Your task to perform on an android device: Show the shopping cart on walmart. Add dell xps to the cart on walmart, then select checkout. Image 0: 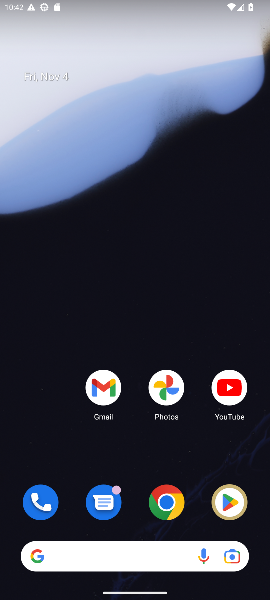
Step 0: drag from (149, 412) to (192, 32)
Your task to perform on an android device: Show the shopping cart on walmart. Add dell xps to the cart on walmart, then select checkout. Image 1: 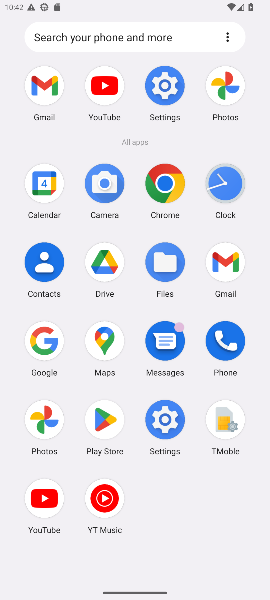
Step 1: click (163, 184)
Your task to perform on an android device: Show the shopping cart on walmart. Add dell xps to the cart on walmart, then select checkout. Image 2: 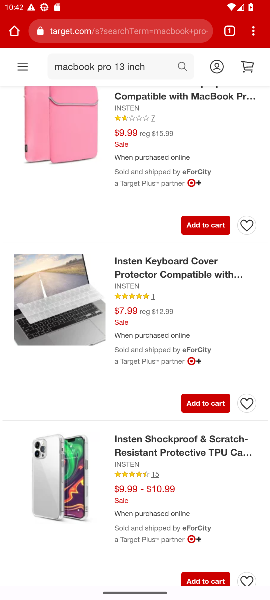
Step 2: click (147, 29)
Your task to perform on an android device: Show the shopping cart on walmart. Add dell xps to the cart on walmart, then select checkout. Image 3: 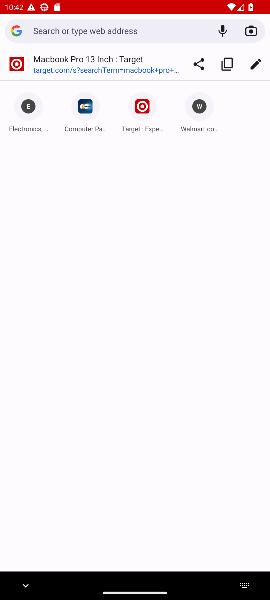
Step 3: type "walmart.com"
Your task to perform on an android device: Show the shopping cart on walmart. Add dell xps to the cart on walmart, then select checkout. Image 4: 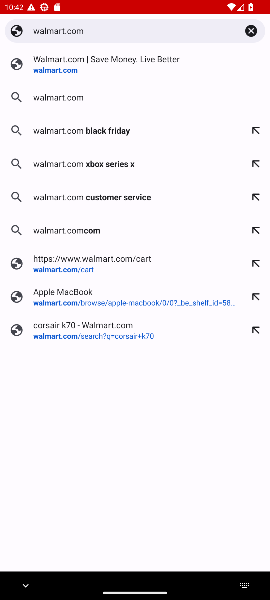
Step 4: press enter
Your task to perform on an android device: Show the shopping cart on walmart. Add dell xps to the cart on walmart, then select checkout. Image 5: 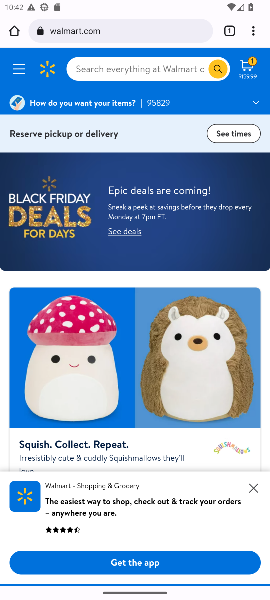
Step 5: click (110, 64)
Your task to perform on an android device: Show the shopping cart on walmart. Add dell xps to the cart on walmart, then select checkout. Image 6: 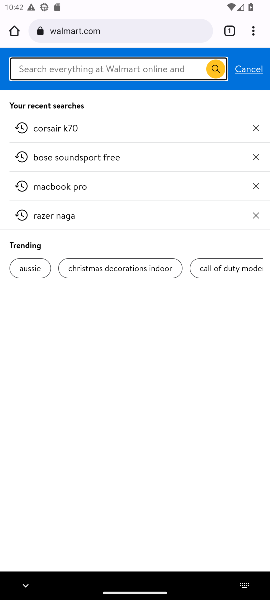
Step 6: type "dell xps"
Your task to perform on an android device: Show the shopping cart on walmart. Add dell xps to the cart on walmart, then select checkout. Image 7: 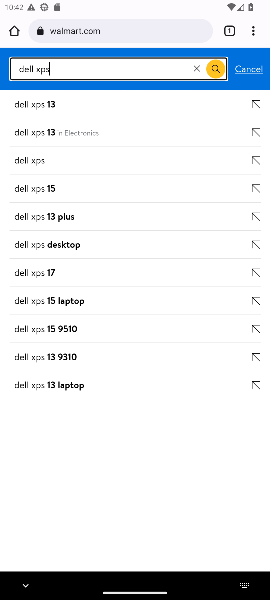
Step 7: press enter
Your task to perform on an android device: Show the shopping cart on walmart. Add dell xps to the cart on walmart, then select checkout. Image 8: 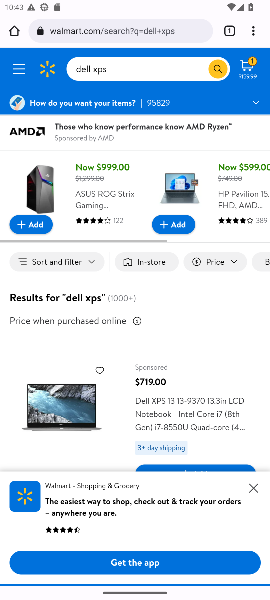
Step 8: drag from (173, 382) to (187, 113)
Your task to perform on an android device: Show the shopping cart on walmart. Add dell xps to the cart on walmart, then select checkout. Image 9: 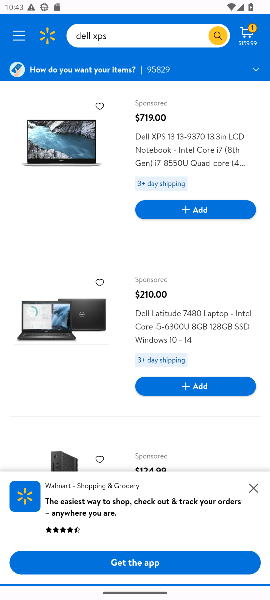
Step 9: drag from (151, 413) to (166, 131)
Your task to perform on an android device: Show the shopping cart on walmart. Add dell xps to the cart on walmart, then select checkout. Image 10: 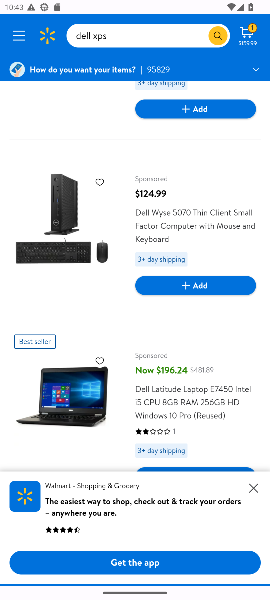
Step 10: drag from (219, 444) to (210, 147)
Your task to perform on an android device: Show the shopping cart on walmart. Add dell xps to the cart on walmart, then select checkout. Image 11: 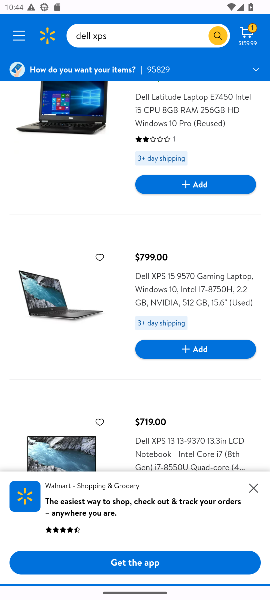
Step 11: click (188, 222)
Your task to perform on an android device: Show the shopping cart on walmart. Add dell xps to the cart on walmart, then select checkout. Image 12: 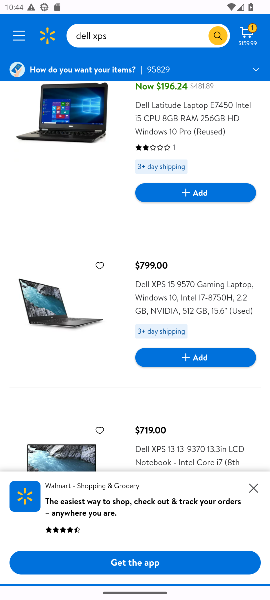
Step 12: click (197, 360)
Your task to perform on an android device: Show the shopping cart on walmart. Add dell xps to the cart on walmart, then select checkout. Image 13: 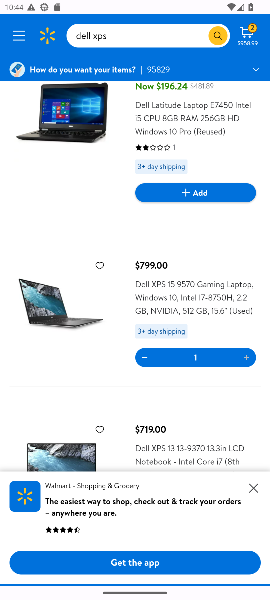
Step 13: click (248, 38)
Your task to perform on an android device: Show the shopping cart on walmart. Add dell xps to the cart on walmart, then select checkout. Image 14: 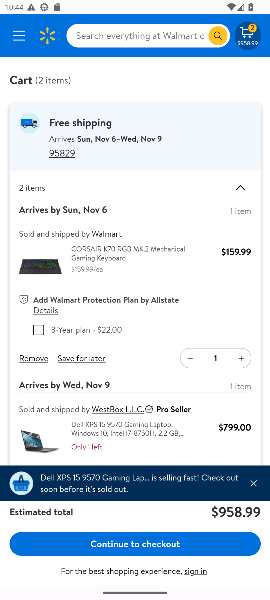
Step 14: click (161, 545)
Your task to perform on an android device: Show the shopping cart on walmart. Add dell xps to the cart on walmart, then select checkout. Image 15: 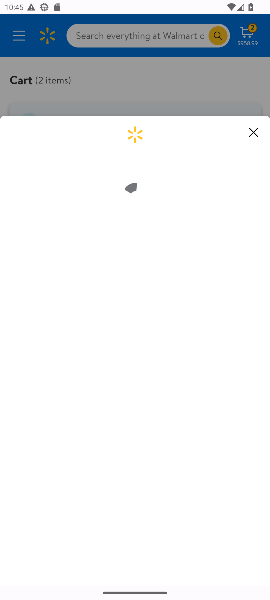
Step 15: task complete